Your task to perform on an android device: turn on improve location accuracy Image 0: 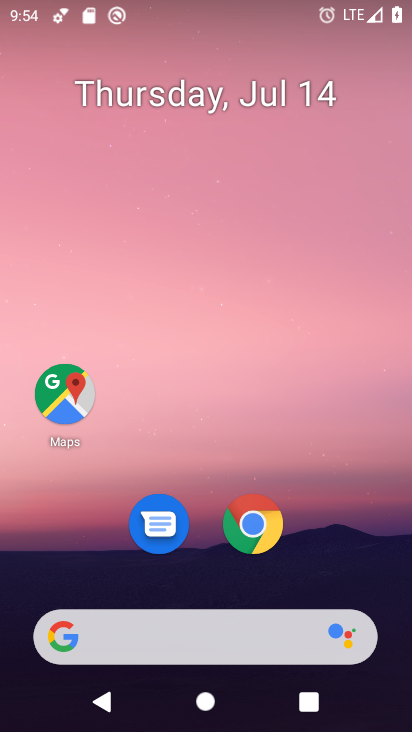
Step 0: drag from (224, 447) to (286, 2)
Your task to perform on an android device: turn on improve location accuracy Image 1: 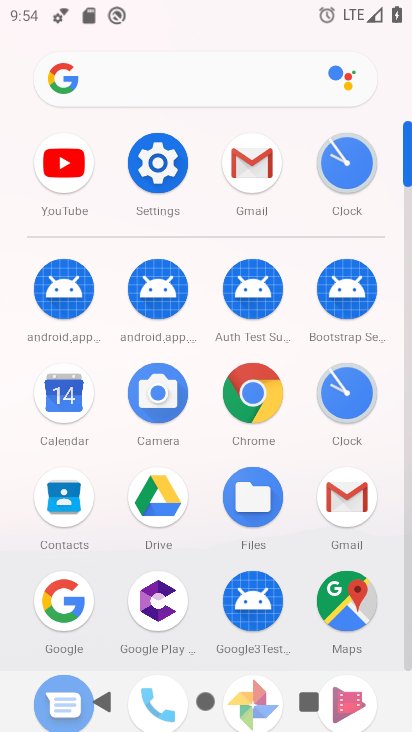
Step 1: click (183, 161)
Your task to perform on an android device: turn on improve location accuracy Image 2: 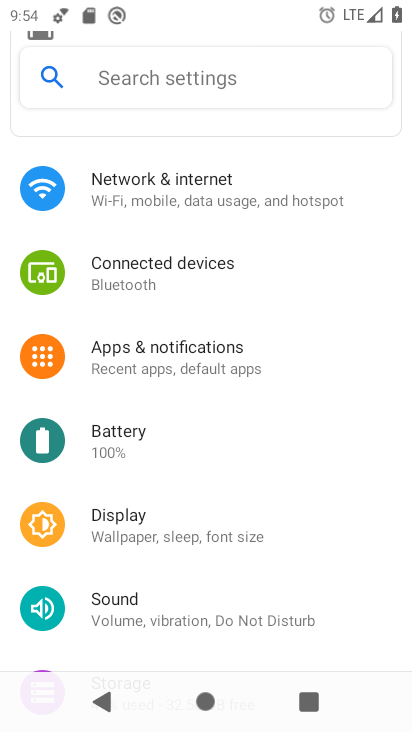
Step 2: drag from (225, 502) to (243, 278)
Your task to perform on an android device: turn on improve location accuracy Image 3: 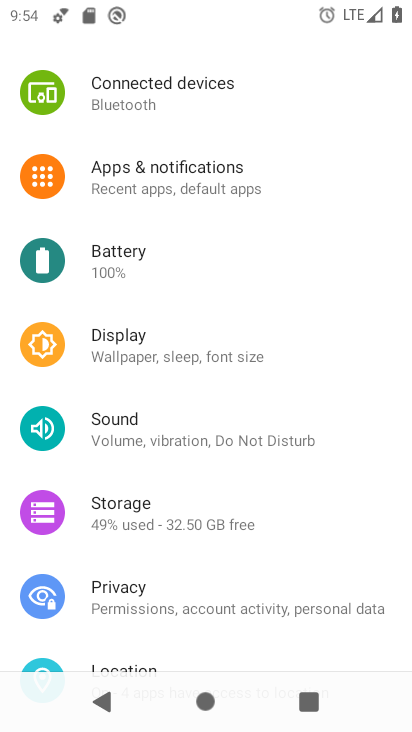
Step 3: drag from (242, 404) to (271, 203)
Your task to perform on an android device: turn on improve location accuracy Image 4: 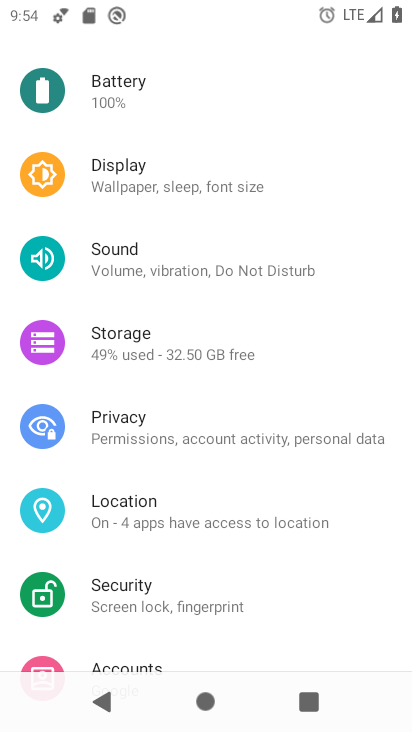
Step 4: click (222, 504)
Your task to perform on an android device: turn on improve location accuracy Image 5: 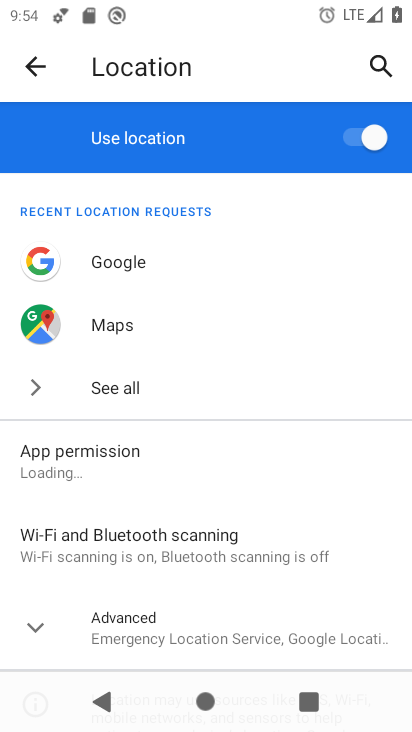
Step 5: click (41, 625)
Your task to perform on an android device: turn on improve location accuracy Image 6: 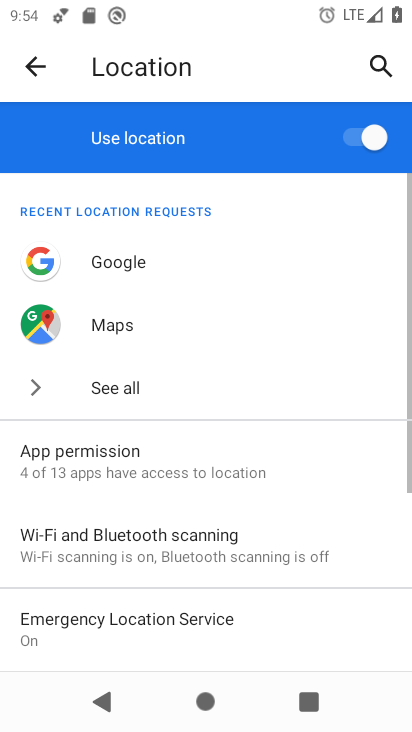
Step 6: drag from (277, 538) to (269, 302)
Your task to perform on an android device: turn on improve location accuracy Image 7: 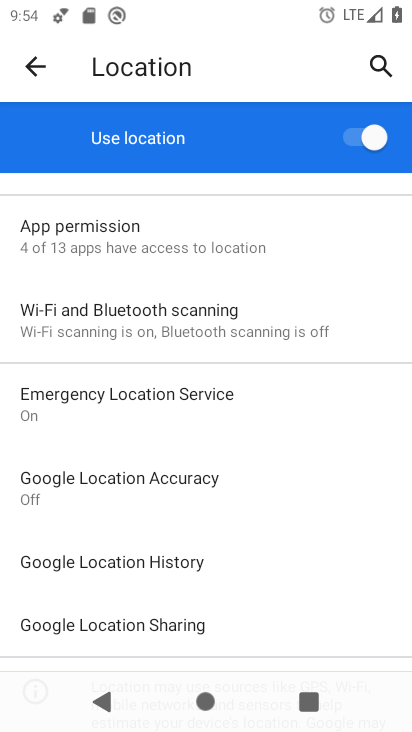
Step 7: click (186, 484)
Your task to perform on an android device: turn on improve location accuracy Image 8: 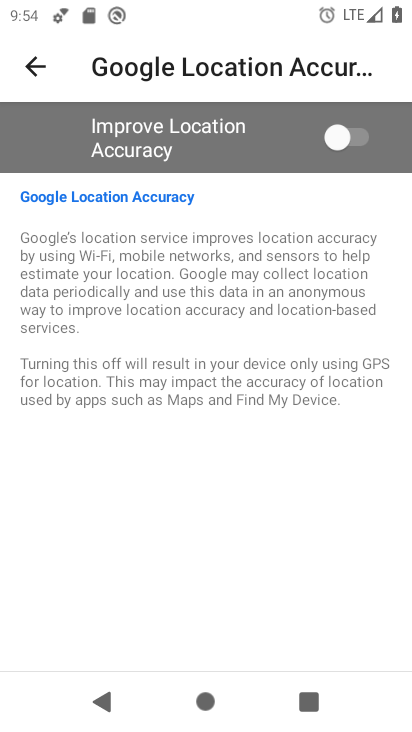
Step 8: click (347, 131)
Your task to perform on an android device: turn on improve location accuracy Image 9: 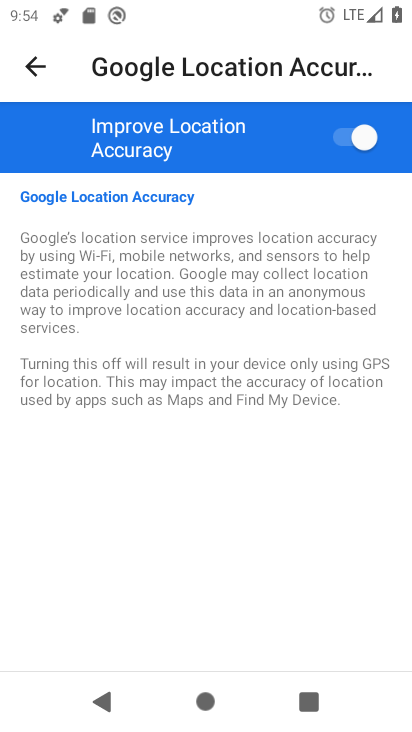
Step 9: task complete